Your task to perform on an android device: uninstall "Gmail" Image 0: 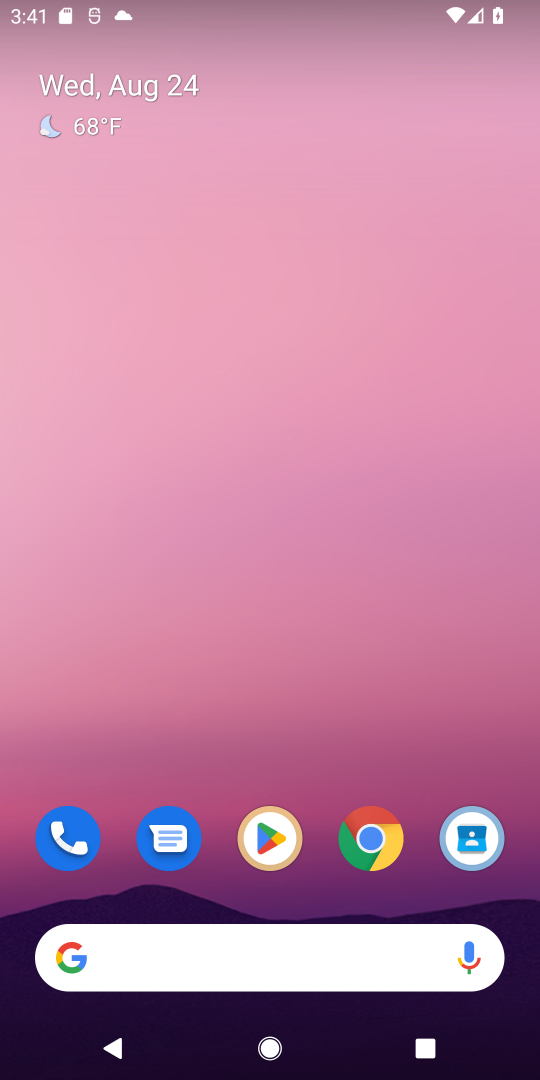
Step 0: task impossible